Your task to perform on an android device: Search for sushi restaurants on Maps Image 0: 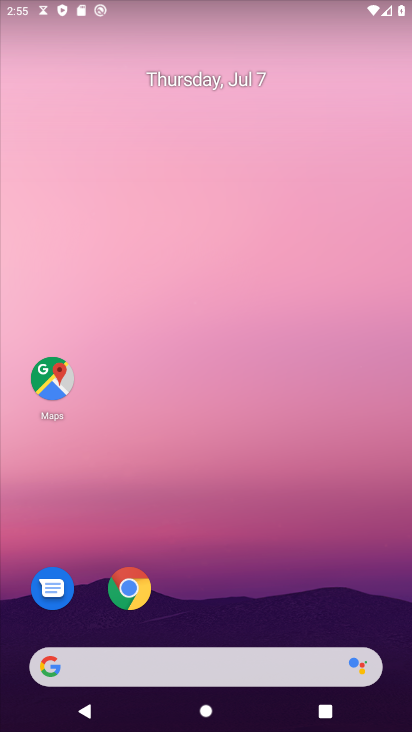
Step 0: click (52, 381)
Your task to perform on an android device: Search for sushi restaurants on Maps Image 1: 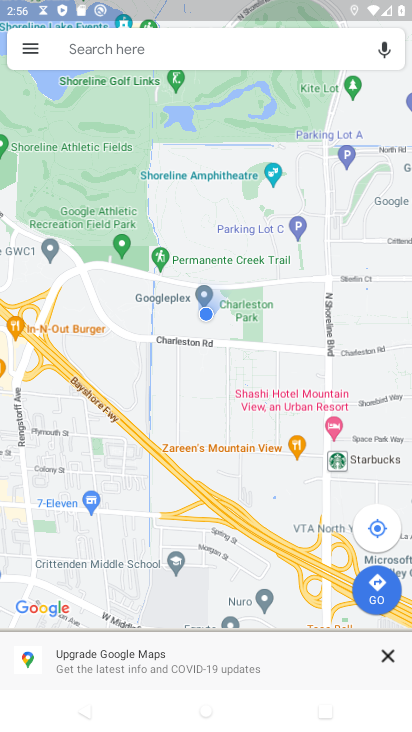
Step 1: click (212, 51)
Your task to perform on an android device: Search for sushi restaurants on Maps Image 2: 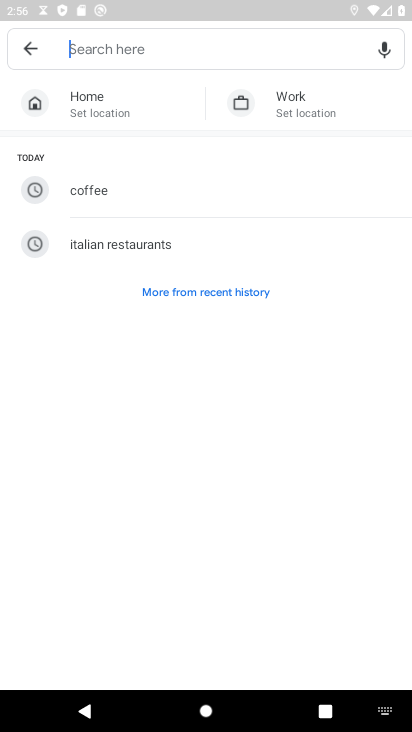
Step 2: type "sushi restaurants"
Your task to perform on an android device: Search for sushi restaurants on Maps Image 3: 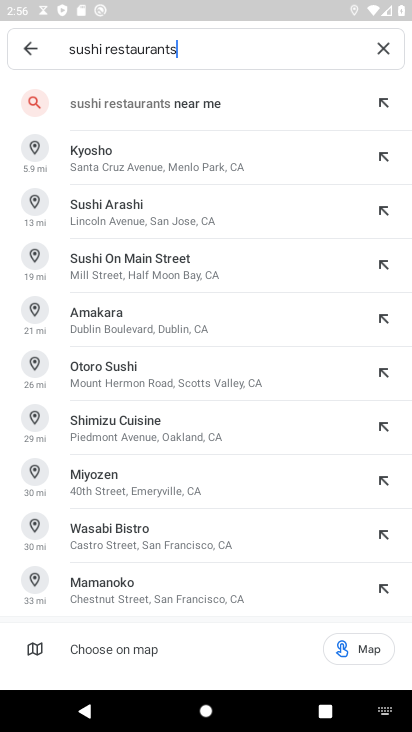
Step 3: click (141, 97)
Your task to perform on an android device: Search for sushi restaurants on Maps Image 4: 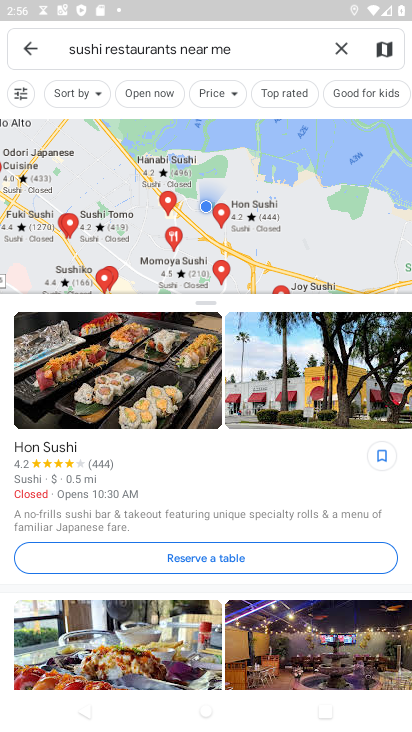
Step 4: task complete